Your task to perform on an android device: What's the weather today? Image 0: 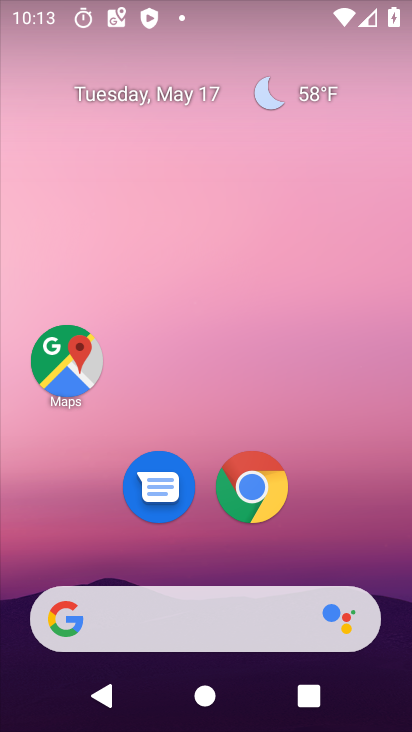
Step 0: click (260, 95)
Your task to perform on an android device: What's the weather today? Image 1: 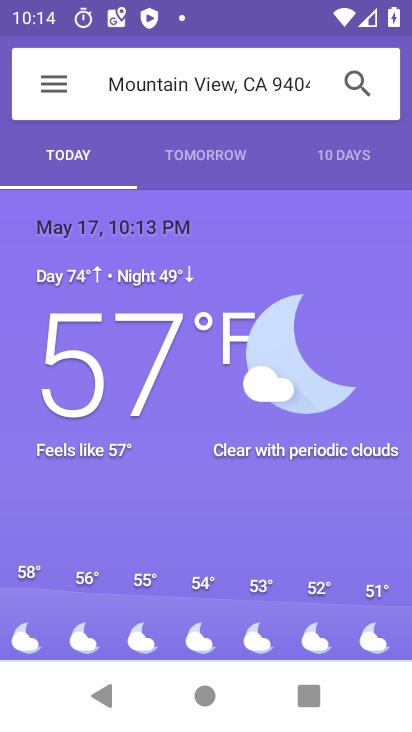
Step 1: task complete